Your task to perform on an android device: What is the news today? Image 0: 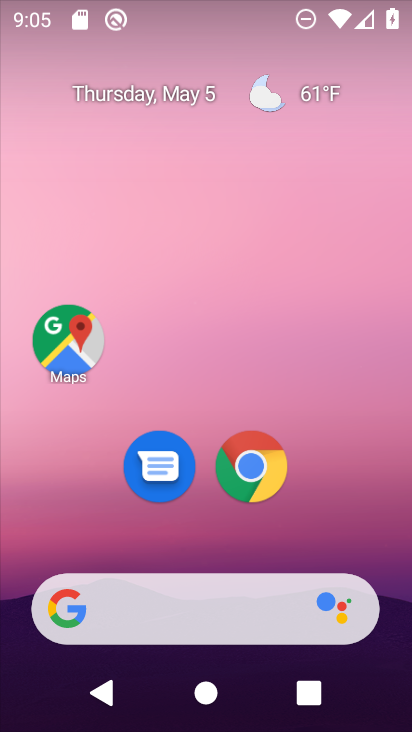
Step 0: drag from (158, 594) to (167, 557)
Your task to perform on an android device: What is the news today? Image 1: 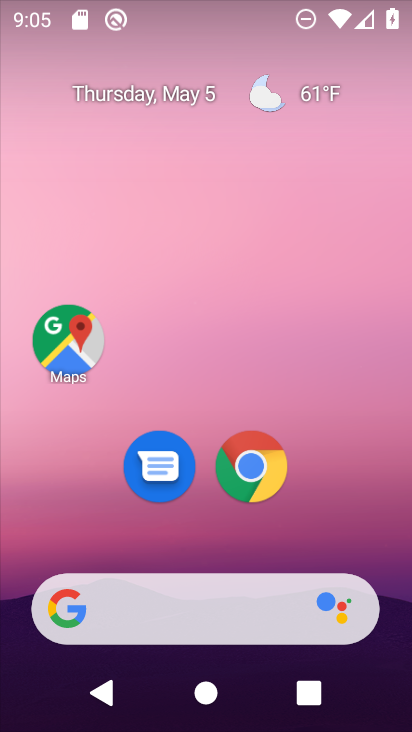
Step 1: task complete